Your task to perform on an android device: Open Reddit Image 0: 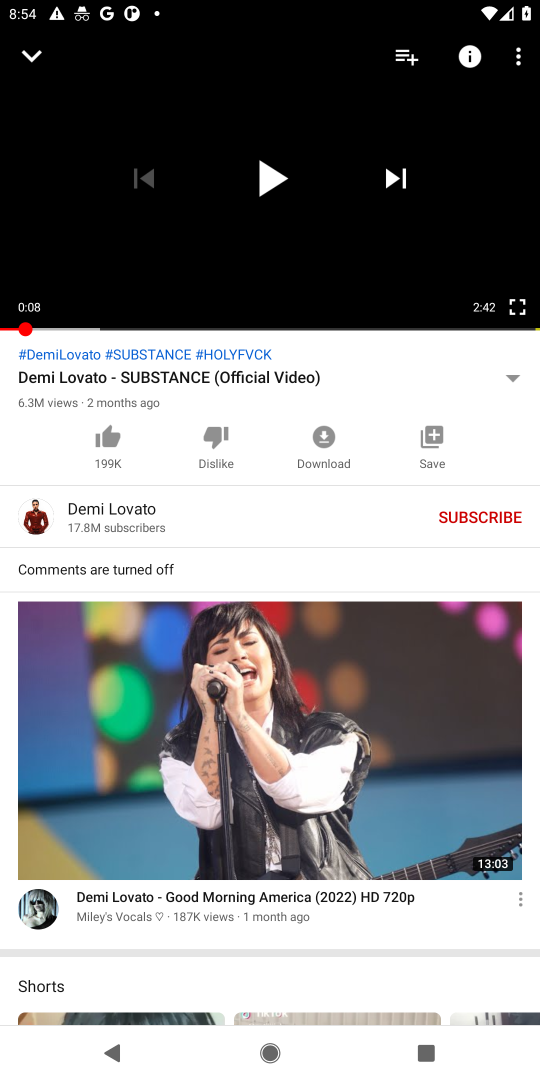
Step 0: press home button
Your task to perform on an android device: Open Reddit Image 1: 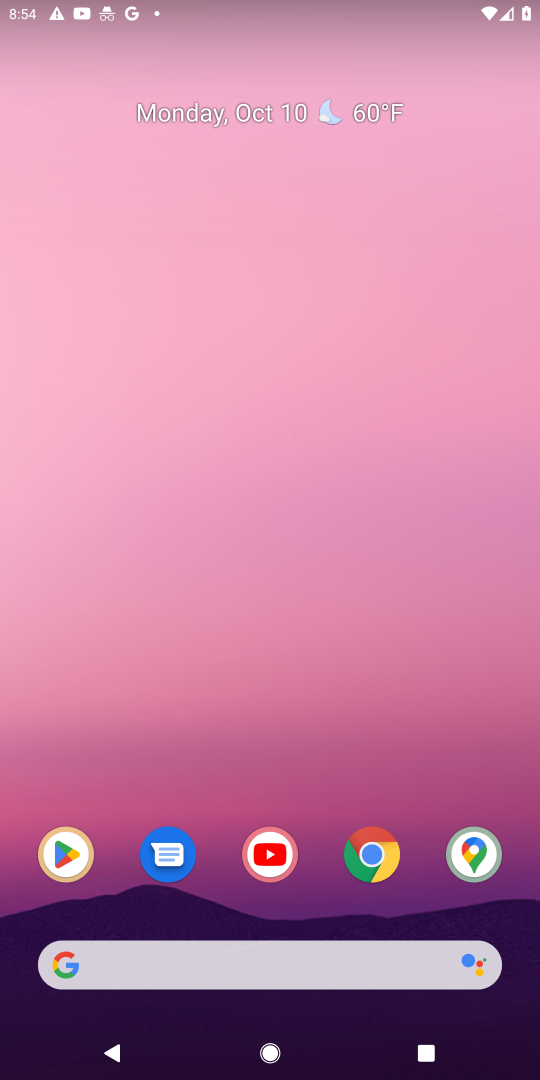
Step 1: click (371, 862)
Your task to perform on an android device: Open Reddit Image 2: 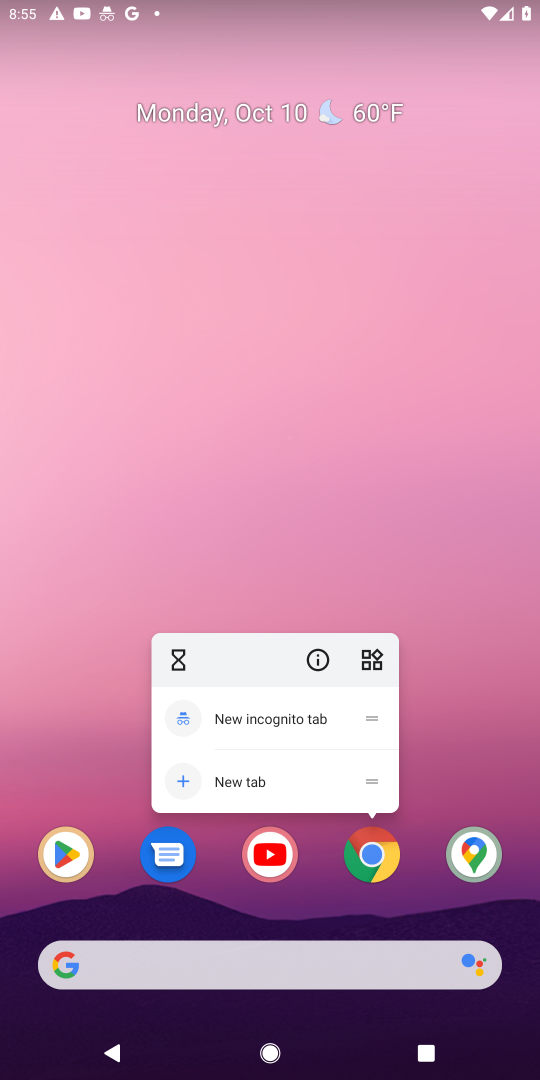
Step 2: click (371, 862)
Your task to perform on an android device: Open Reddit Image 3: 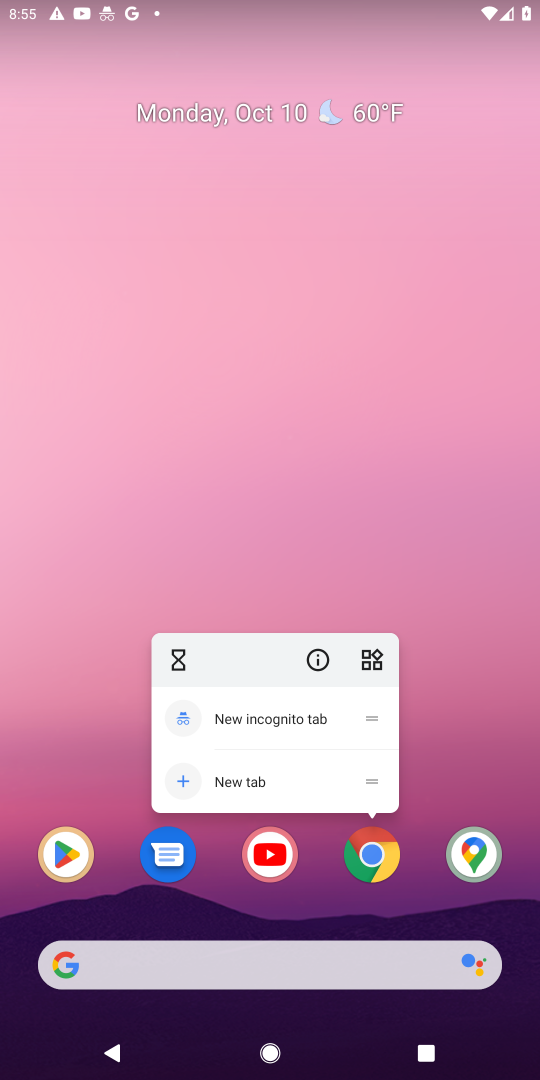
Step 3: click (368, 858)
Your task to perform on an android device: Open Reddit Image 4: 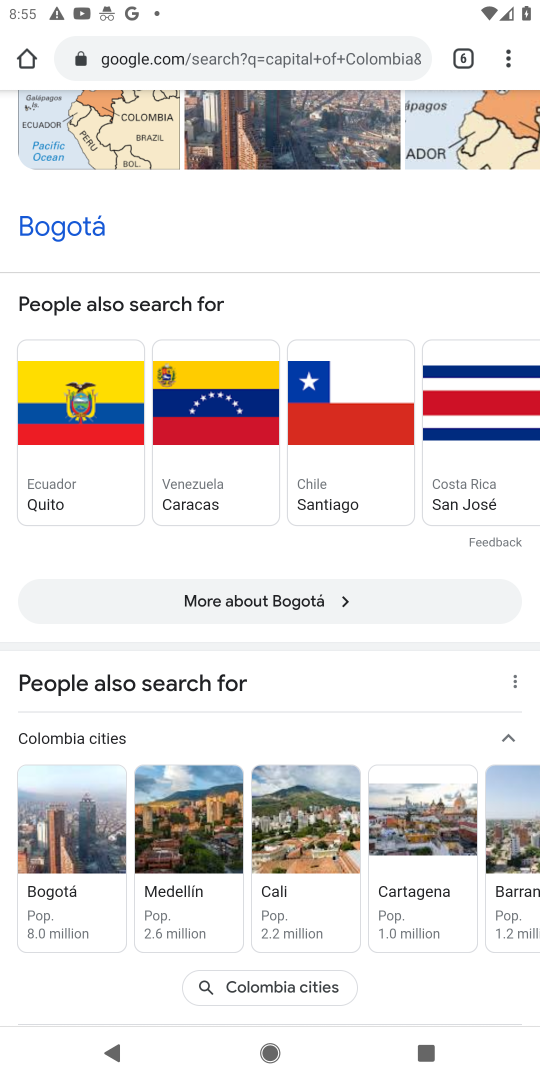
Step 4: click (267, 61)
Your task to perform on an android device: Open Reddit Image 5: 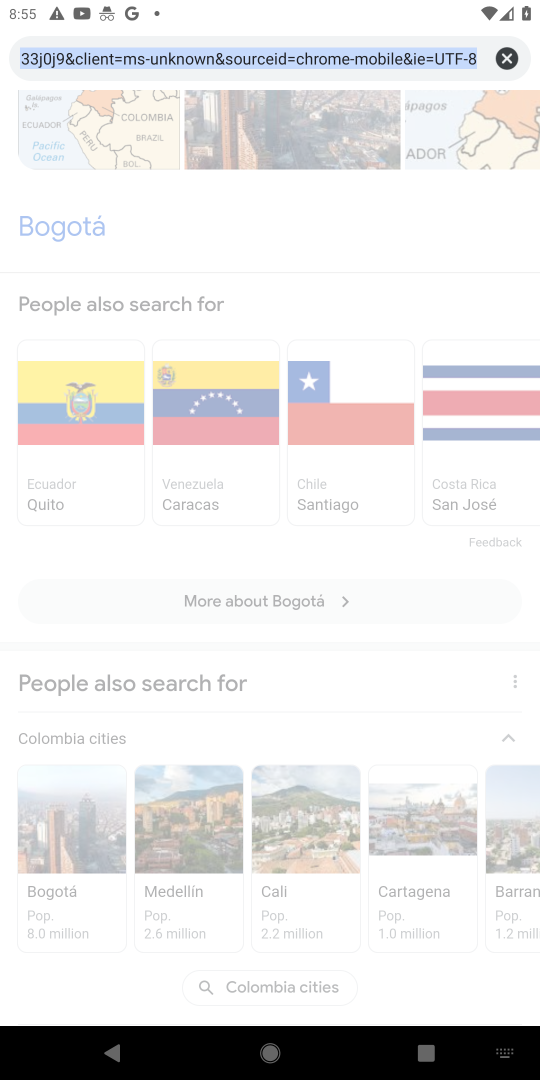
Step 5: click (506, 53)
Your task to perform on an android device: Open Reddit Image 6: 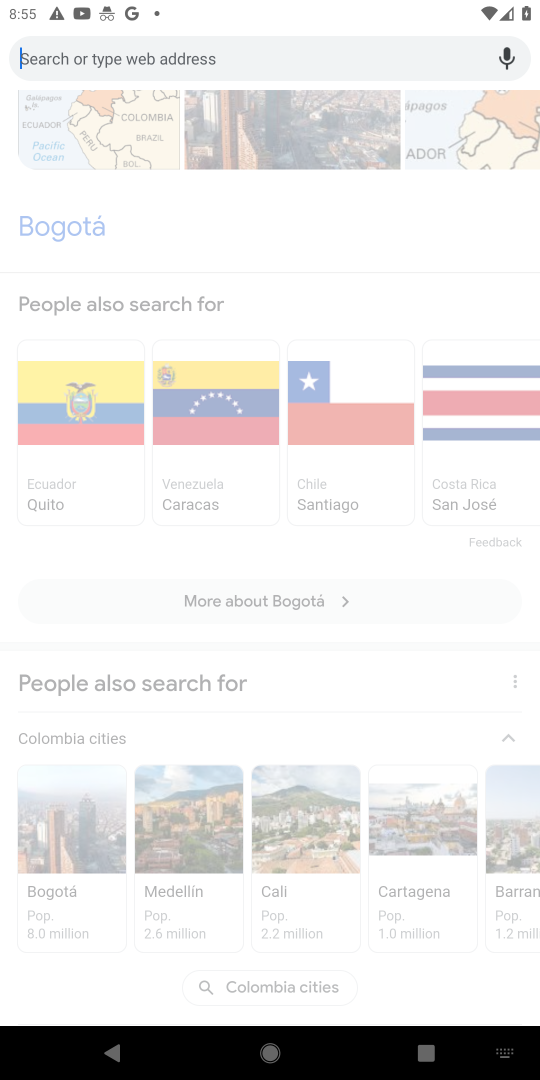
Step 6: type "Open Reddit"
Your task to perform on an android device: Open Reddit Image 7: 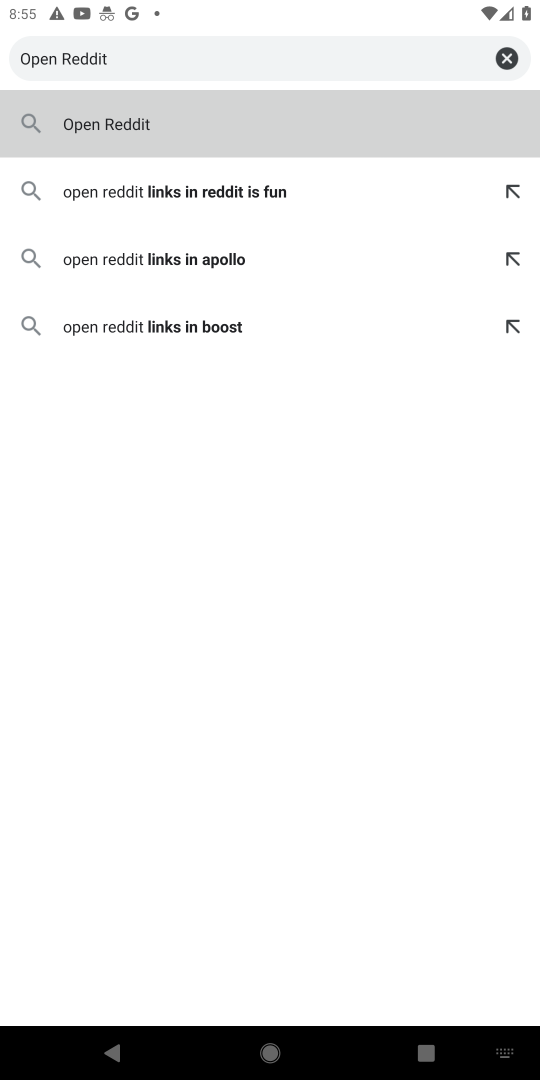
Step 7: click (139, 116)
Your task to perform on an android device: Open Reddit Image 8: 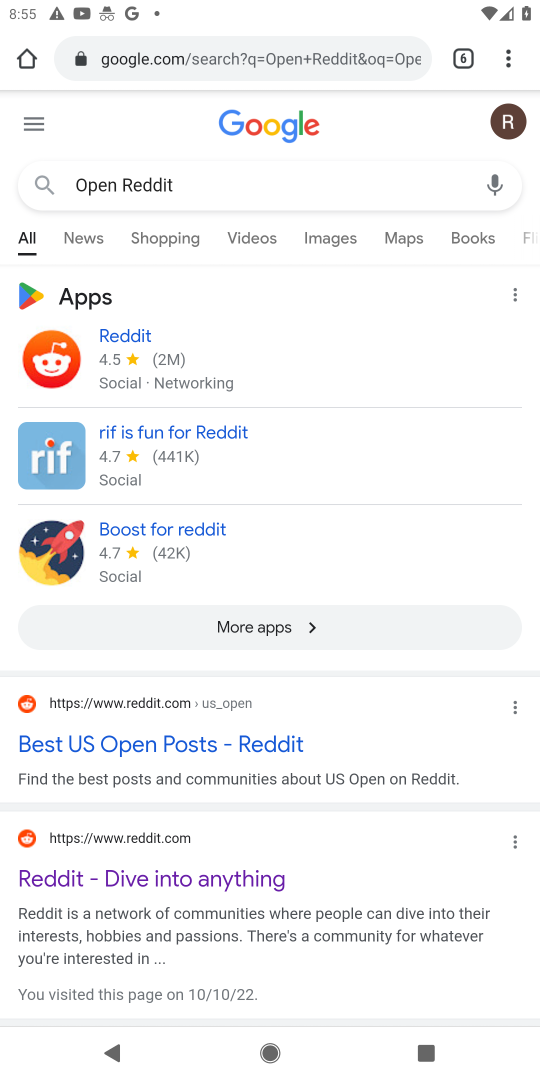
Step 8: click (84, 296)
Your task to perform on an android device: Open Reddit Image 9: 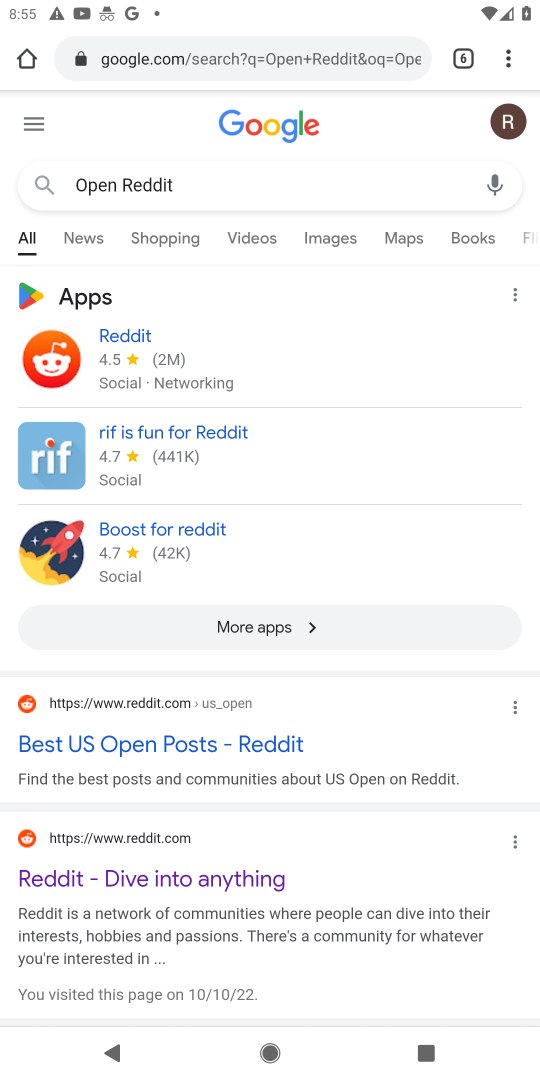
Step 9: click (21, 298)
Your task to perform on an android device: Open Reddit Image 10: 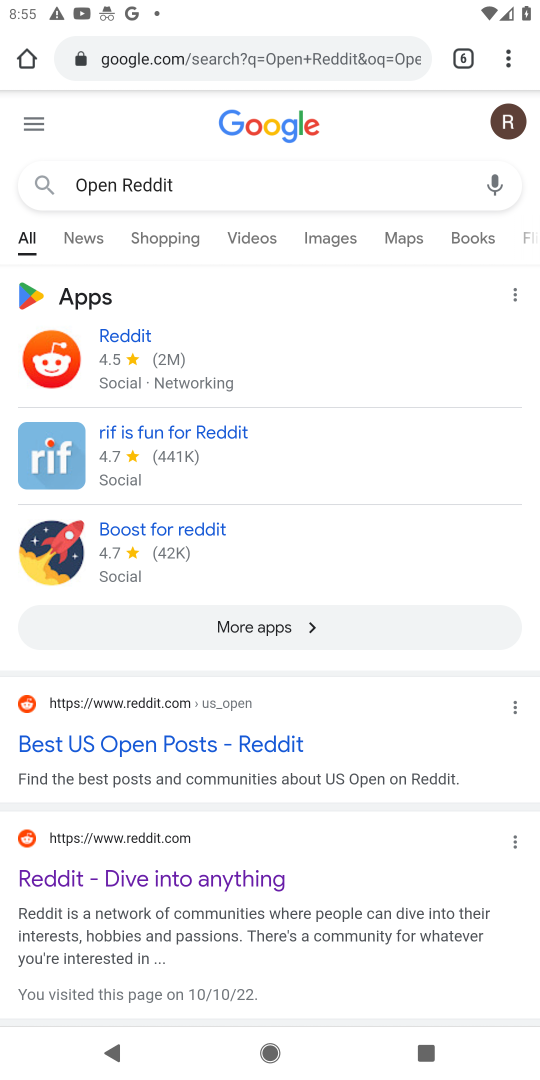
Step 10: click (130, 335)
Your task to perform on an android device: Open Reddit Image 11: 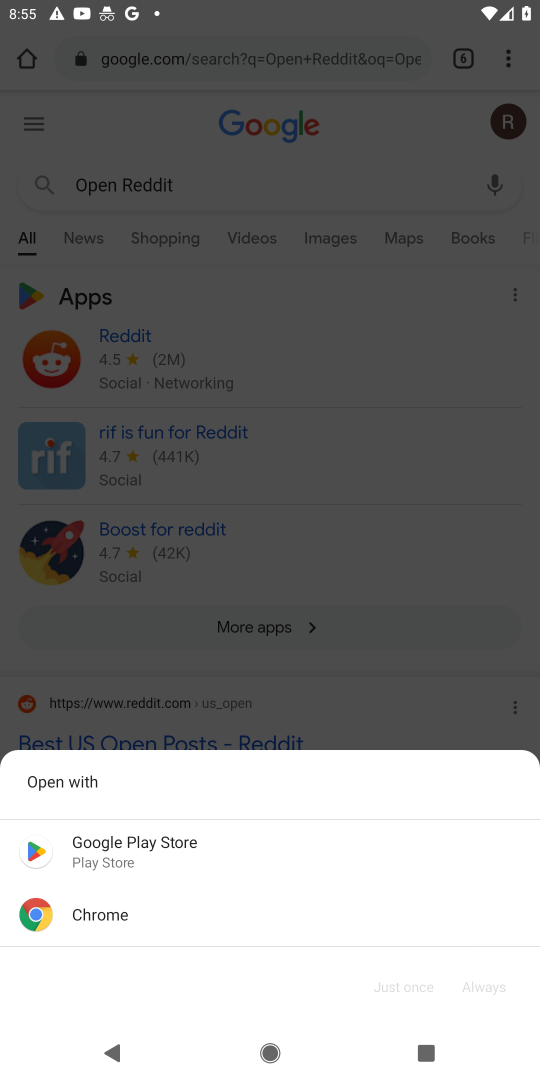
Step 11: click (116, 843)
Your task to perform on an android device: Open Reddit Image 12: 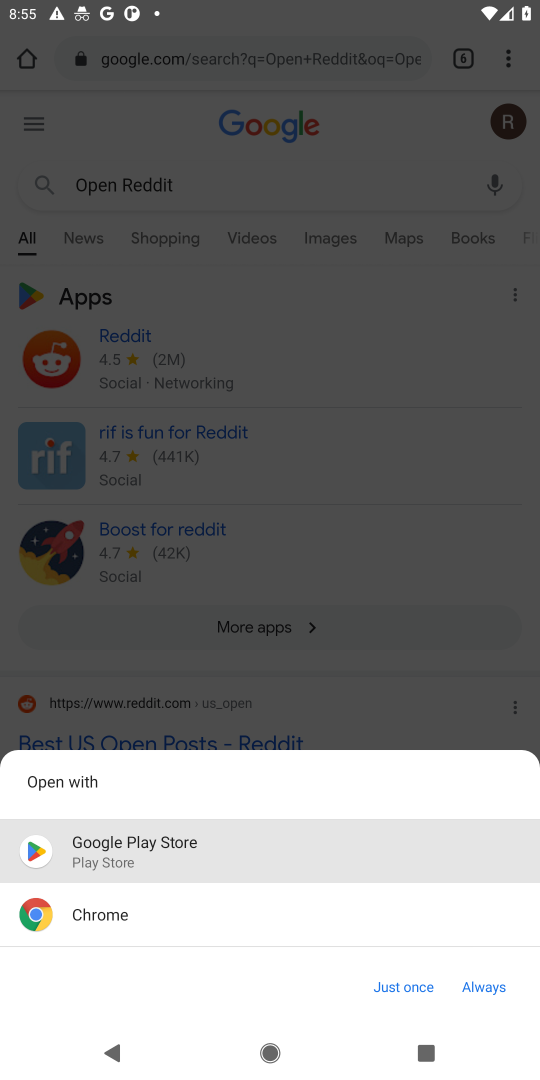
Step 12: click (413, 990)
Your task to perform on an android device: Open Reddit Image 13: 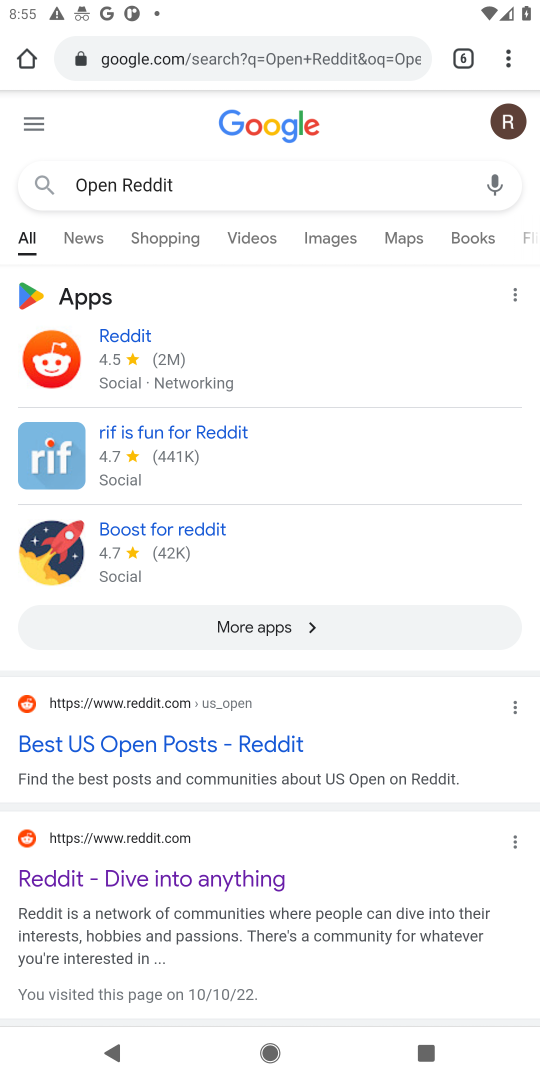
Step 13: task complete